Your task to perform on an android device: Open internet settings Image 0: 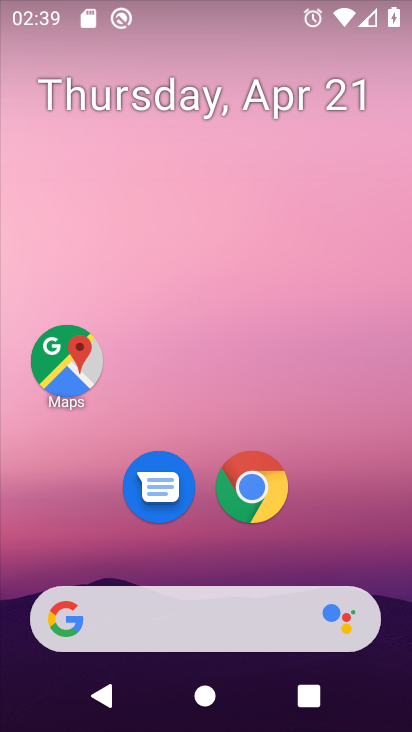
Step 0: drag from (208, 566) to (237, 4)
Your task to perform on an android device: Open internet settings Image 1: 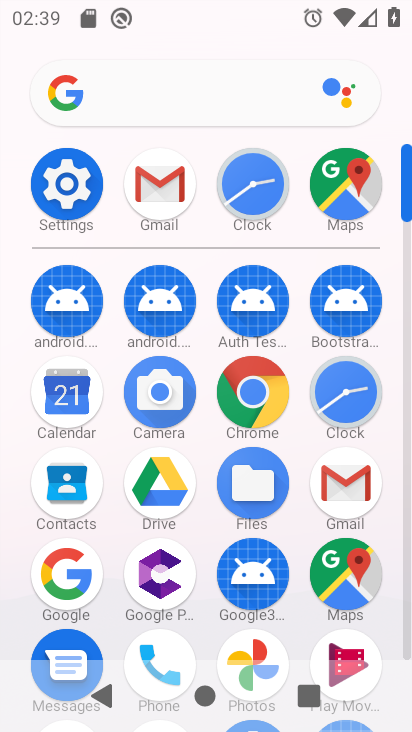
Step 1: click (78, 191)
Your task to perform on an android device: Open internet settings Image 2: 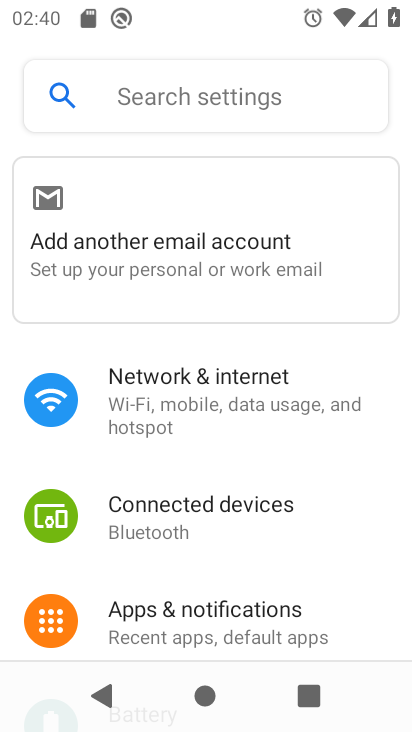
Step 2: click (208, 413)
Your task to perform on an android device: Open internet settings Image 3: 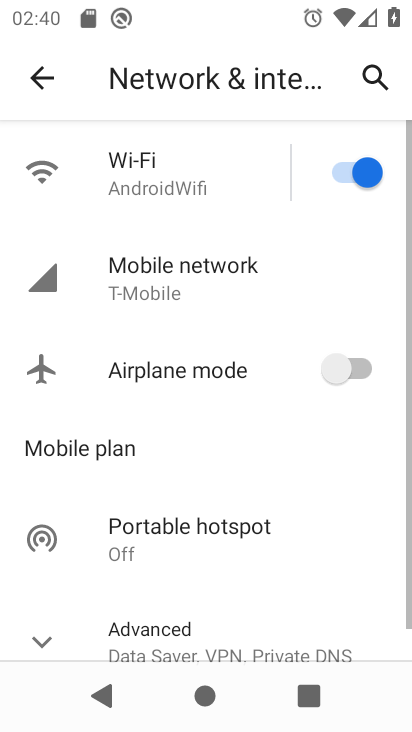
Step 3: task complete